Your task to perform on an android device: Go to Android settings Image 0: 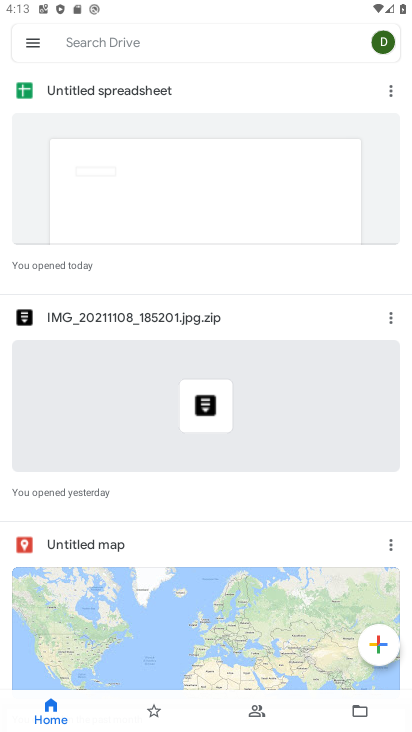
Step 0: press home button
Your task to perform on an android device: Go to Android settings Image 1: 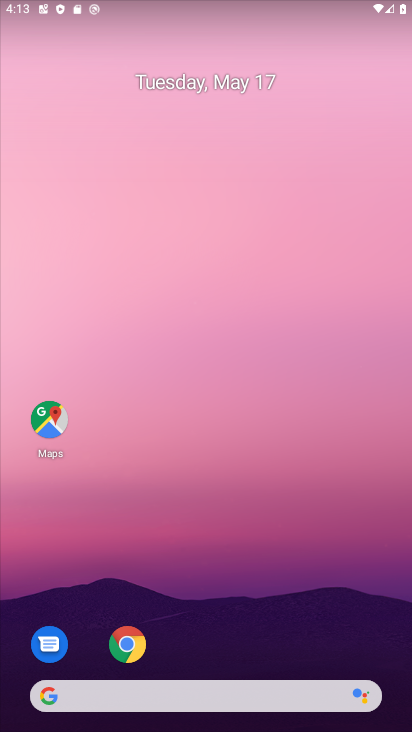
Step 1: drag from (234, 624) to (191, 75)
Your task to perform on an android device: Go to Android settings Image 2: 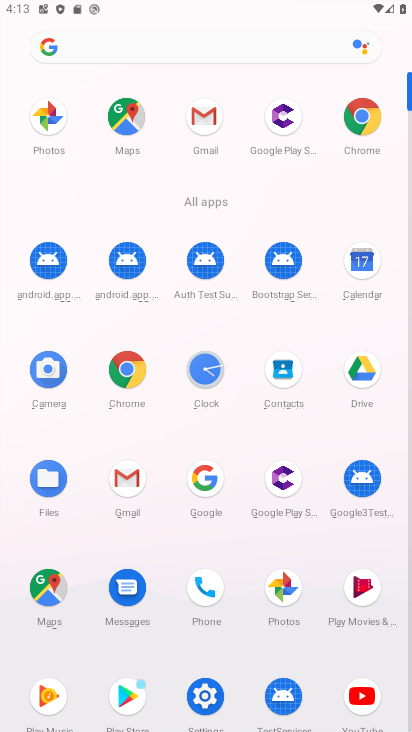
Step 2: click (208, 685)
Your task to perform on an android device: Go to Android settings Image 3: 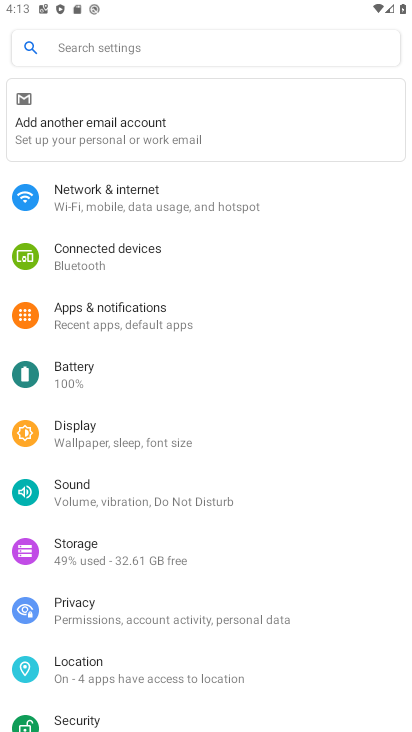
Step 3: task complete